Your task to perform on an android device: What's the weather? Image 0: 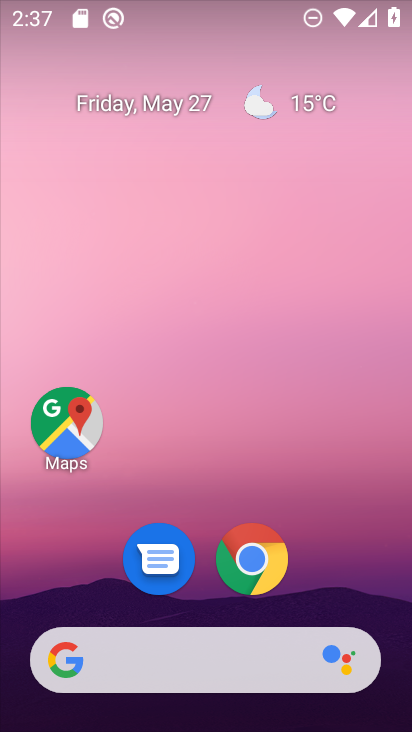
Step 0: drag from (54, 192) to (287, 179)
Your task to perform on an android device: What's the weather? Image 1: 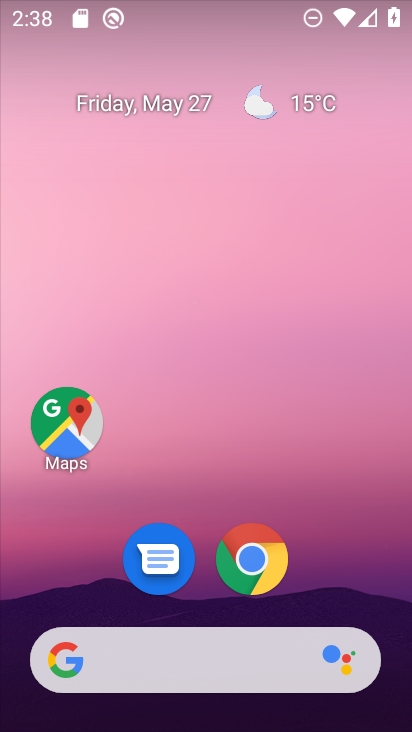
Step 1: drag from (307, 569) to (306, 12)
Your task to perform on an android device: What's the weather? Image 2: 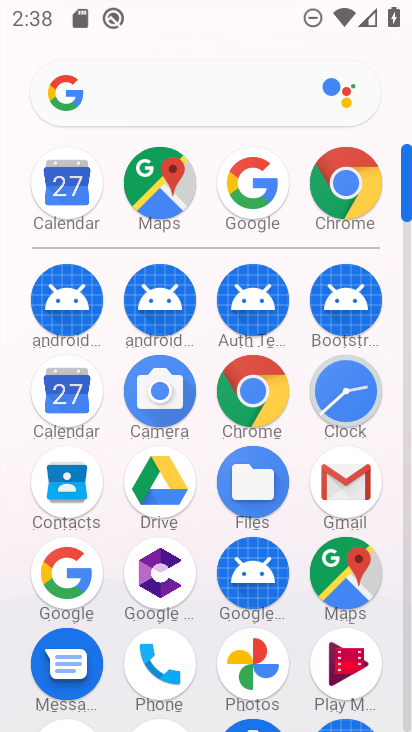
Step 2: click (84, 579)
Your task to perform on an android device: What's the weather? Image 3: 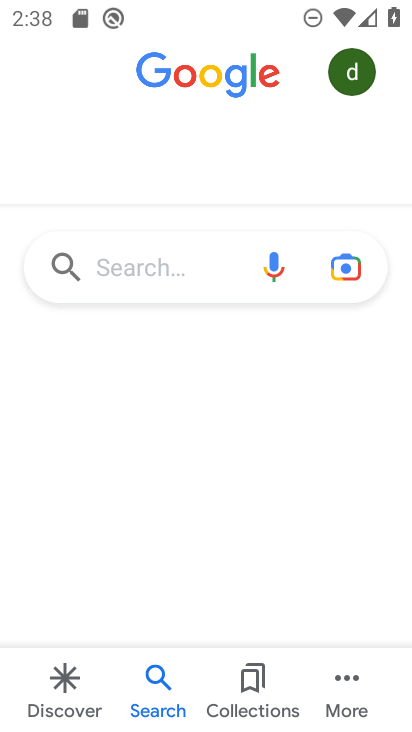
Step 3: drag from (227, 357) to (256, 727)
Your task to perform on an android device: What's the weather? Image 4: 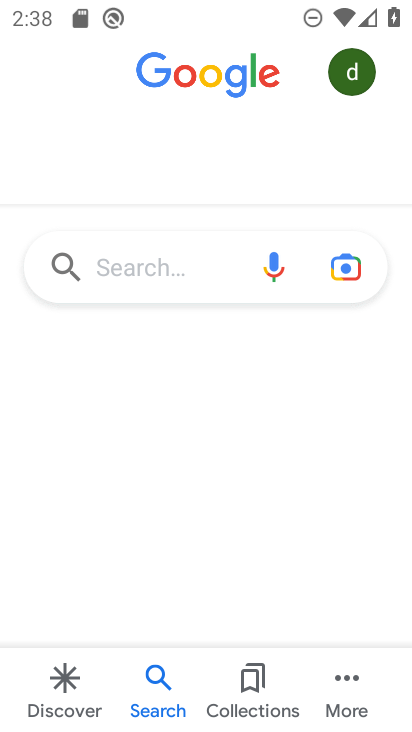
Step 4: click (142, 246)
Your task to perform on an android device: What's the weather? Image 5: 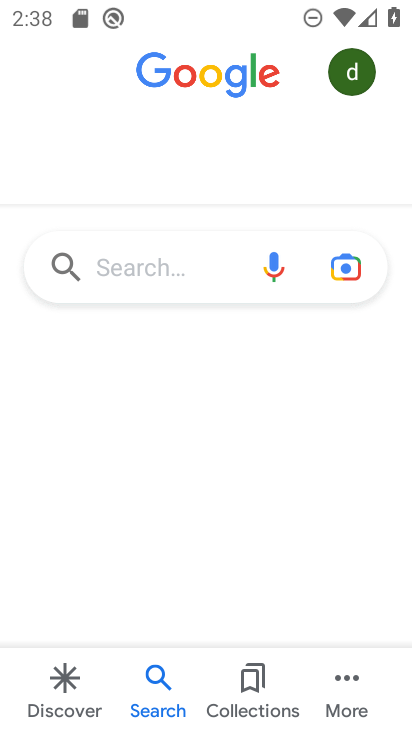
Step 5: click (143, 260)
Your task to perform on an android device: What's the weather? Image 6: 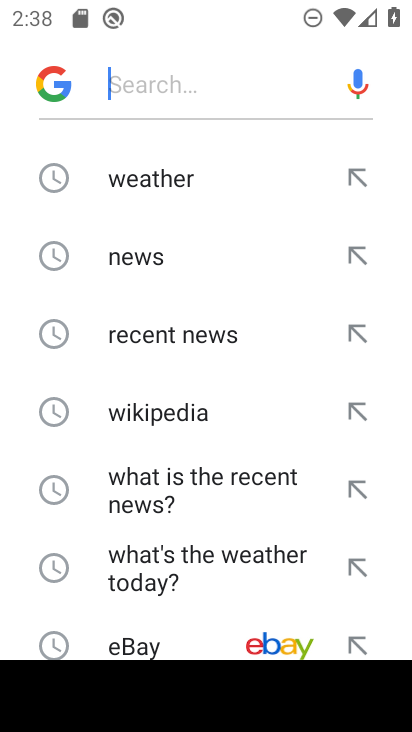
Step 6: click (137, 175)
Your task to perform on an android device: What's the weather? Image 7: 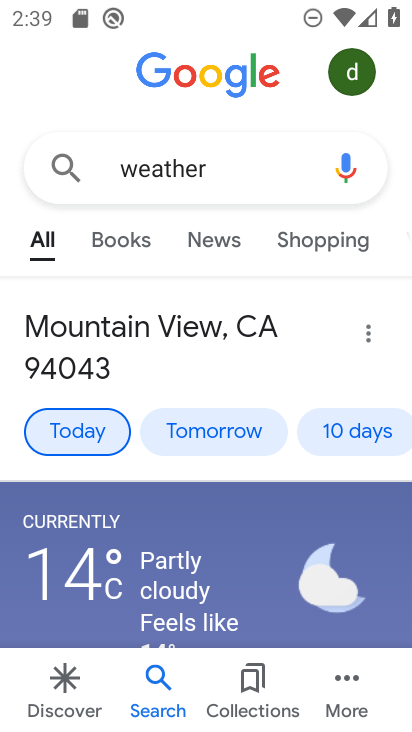
Step 7: task complete